Your task to perform on an android device: set default search engine in the chrome app Image 0: 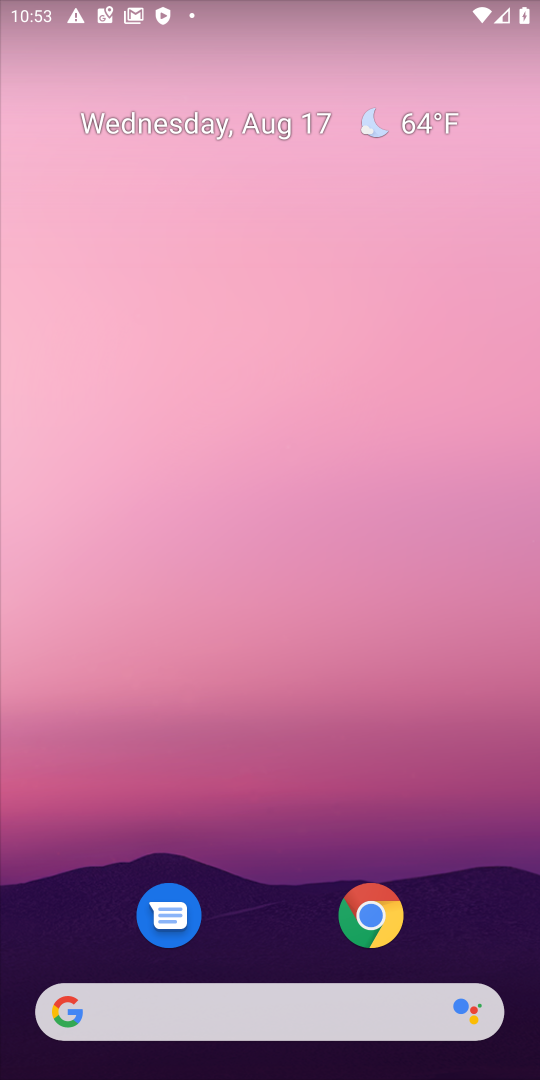
Step 0: click (372, 914)
Your task to perform on an android device: set default search engine in the chrome app Image 1: 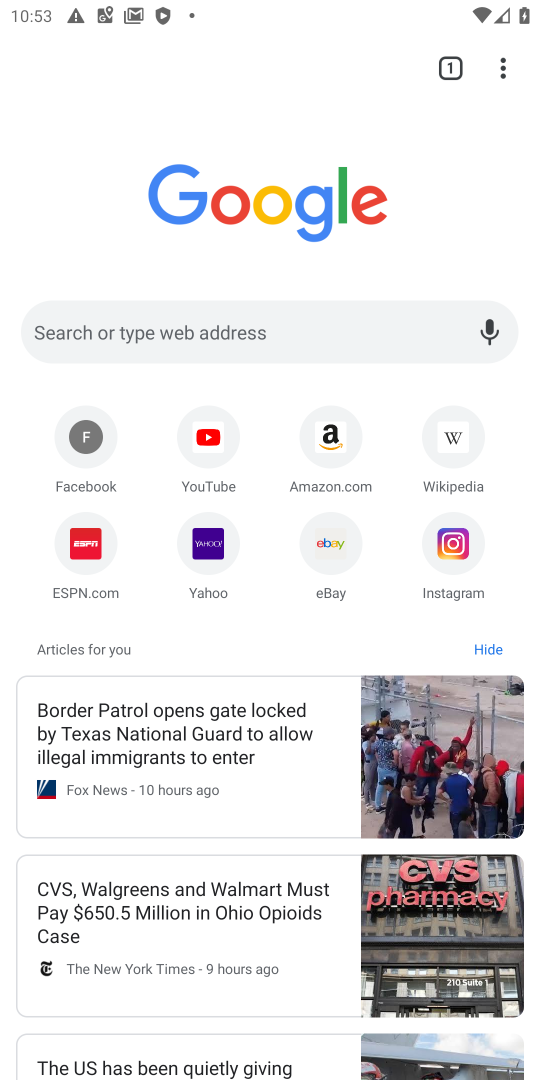
Step 1: click (500, 62)
Your task to perform on an android device: set default search engine in the chrome app Image 2: 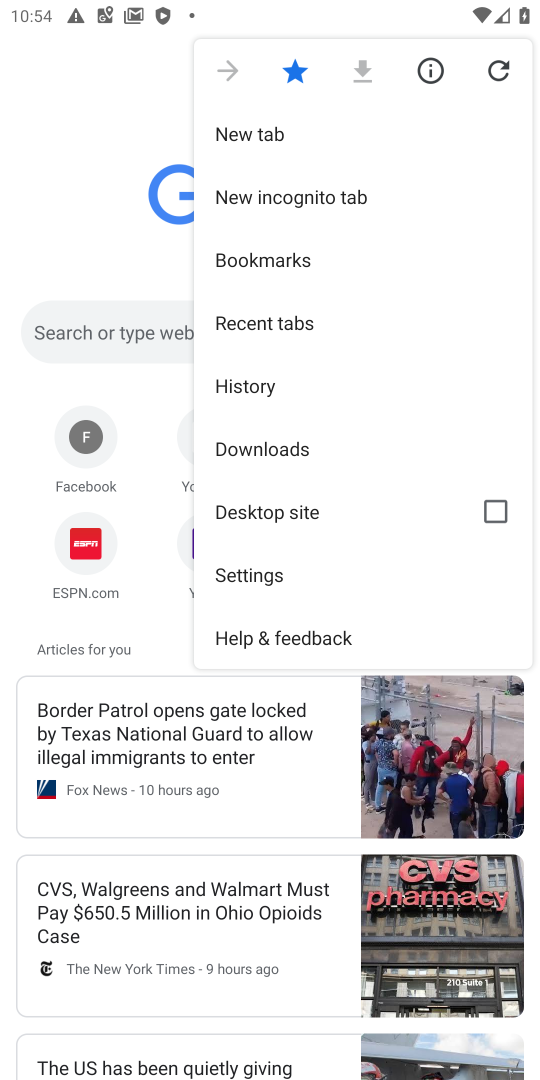
Step 2: click (274, 575)
Your task to perform on an android device: set default search engine in the chrome app Image 3: 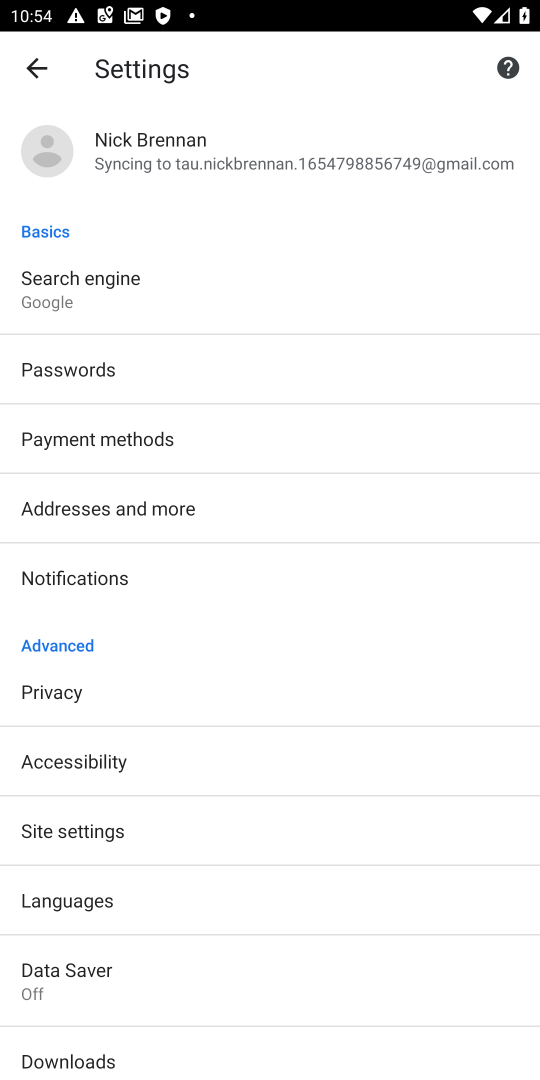
Step 3: click (96, 281)
Your task to perform on an android device: set default search engine in the chrome app Image 4: 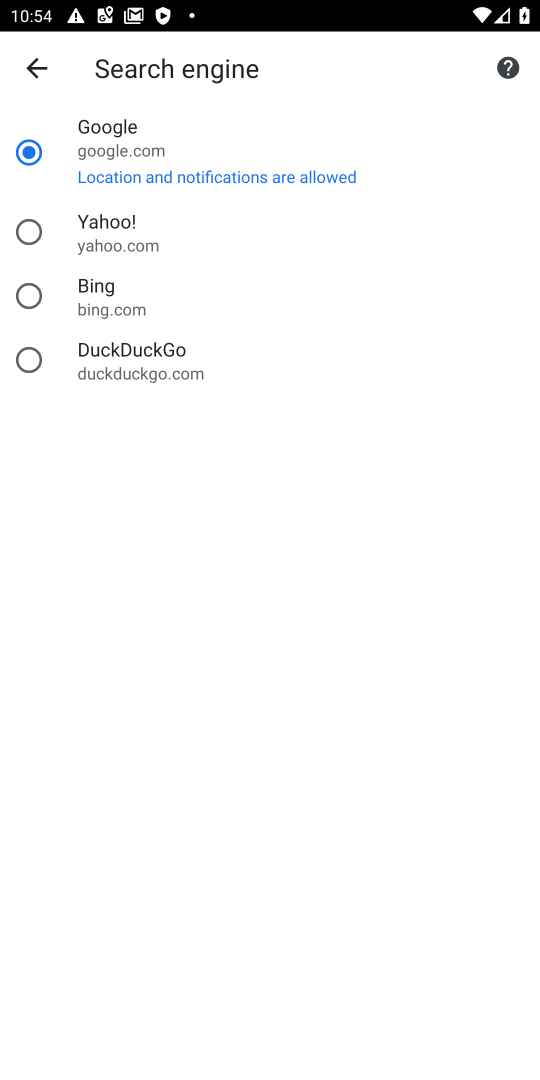
Step 4: task complete